Your task to perform on an android device: Go to Google maps Image 0: 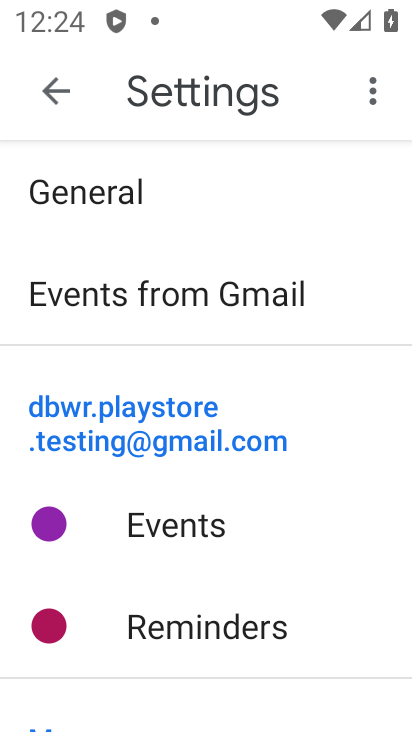
Step 0: press home button
Your task to perform on an android device: Go to Google maps Image 1: 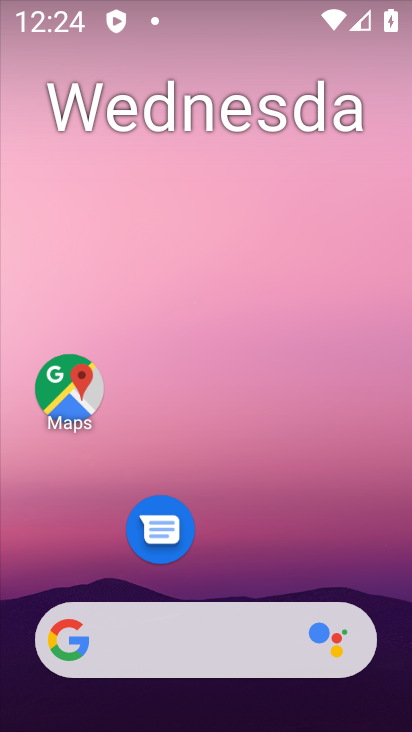
Step 1: drag from (187, 570) to (269, 12)
Your task to perform on an android device: Go to Google maps Image 2: 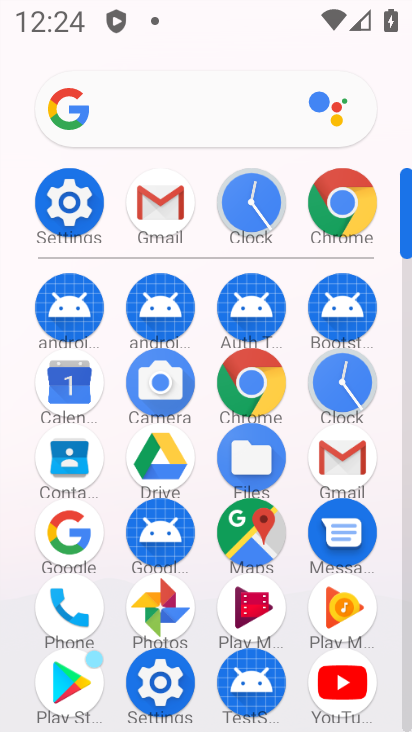
Step 2: click (273, 538)
Your task to perform on an android device: Go to Google maps Image 3: 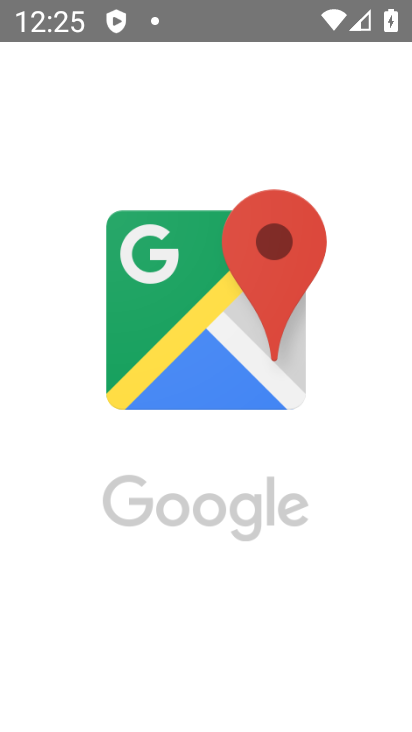
Step 3: task complete